Your task to perform on an android device: turn on airplane mode Image 0: 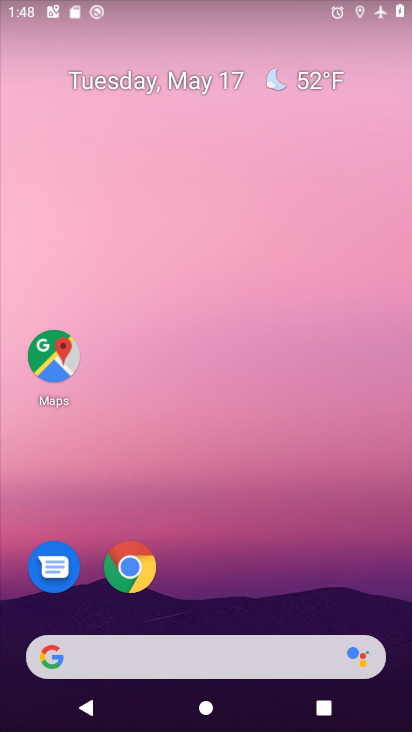
Step 0: drag from (219, 609) to (205, 45)
Your task to perform on an android device: turn on airplane mode Image 1: 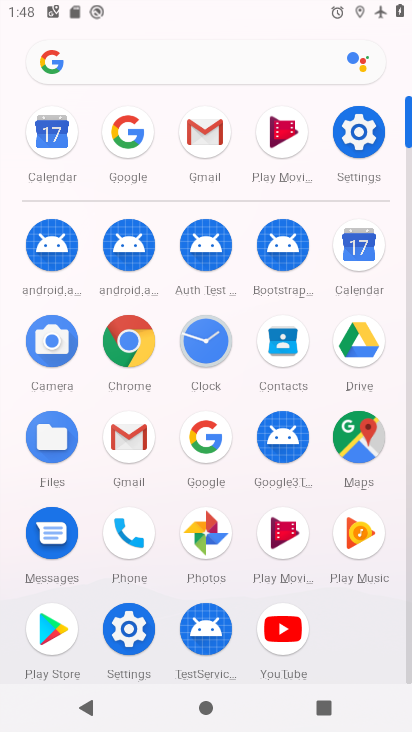
Step 1: click (347, 141)
Your task to perform on an android device: turn on airplane mode Image 2: 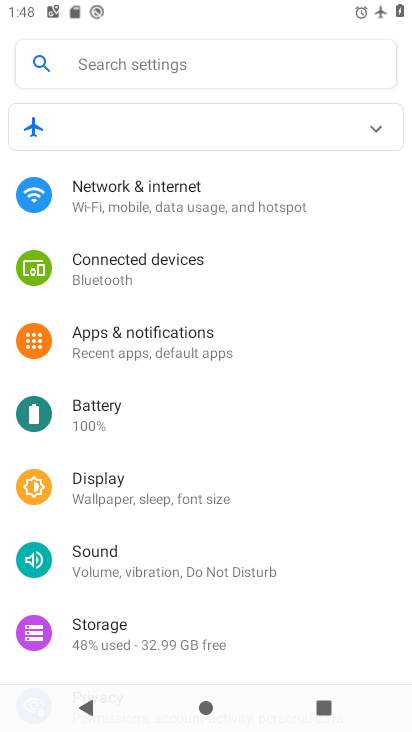
Step 2: task complete